Your task to perform on an android device: Show me recent news Image 0: 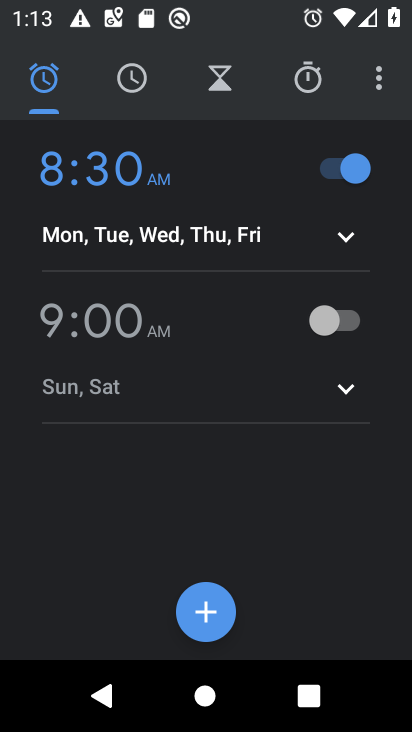
Step 0: press back button
Your task to perform on an android device: Show me recent news Image 1: 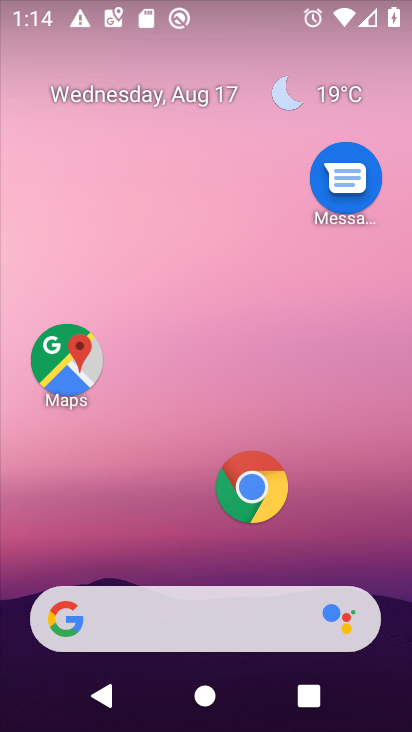
Step 1: click (108, 604)
Your task to perform on an android device: Show me recent news Image 2: 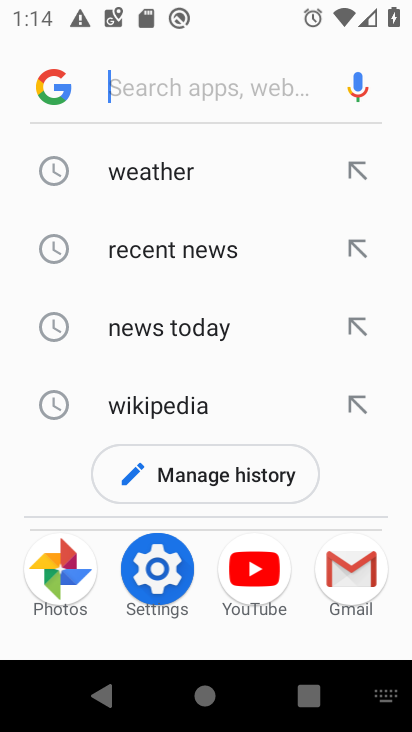
Step 2: click (156, 252)
Your task to perform on an android device: Show me recent news Image 3: 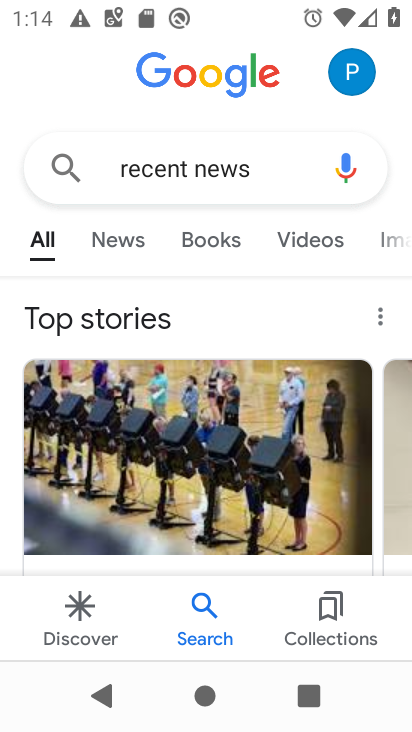
Step 3: task complete